Your task to perform on an android device: change the clock display to digital Image 0: 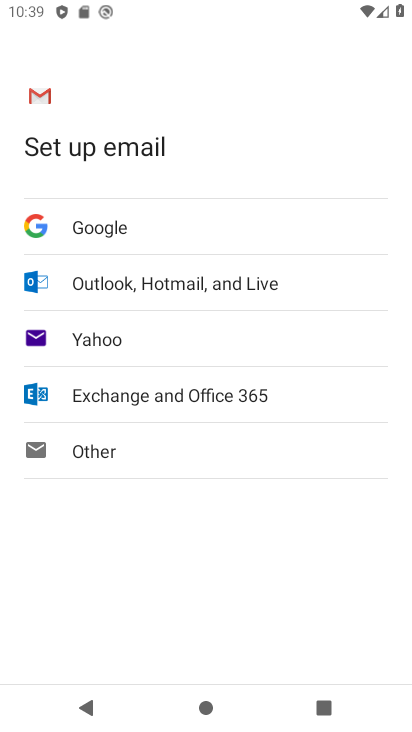
Step 0: press home button
Your task to perform on an android device: change the clock display to digital Image 1: 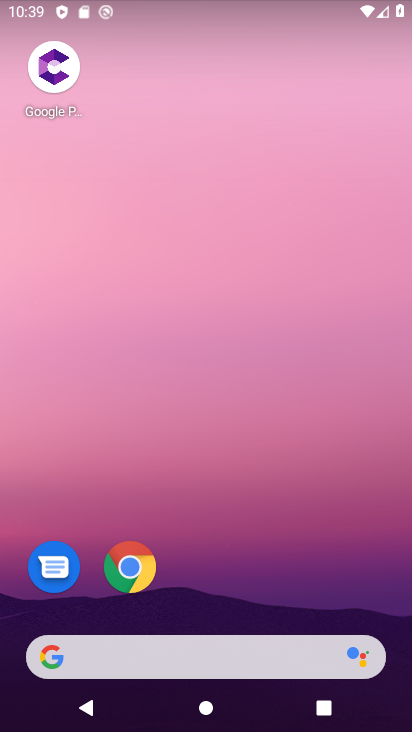
Step 1: drag from (214, 583) to (201, 18)
Your task to perform on an android device: change the clock display to digital Image 2: 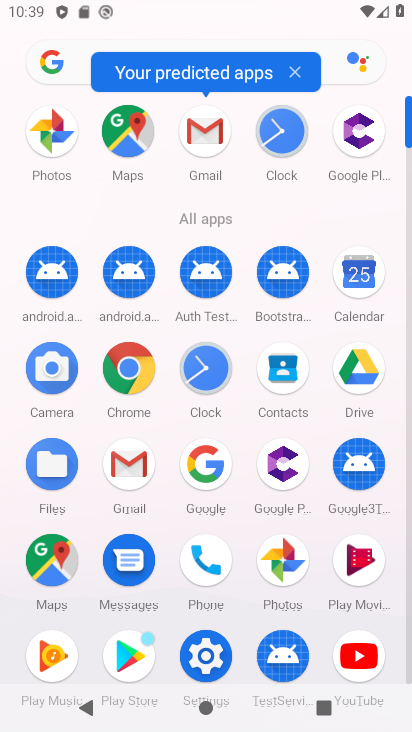
Step 2: click (199, 376)
Your task to perform on an android device: change the clock display to digital Image 3: 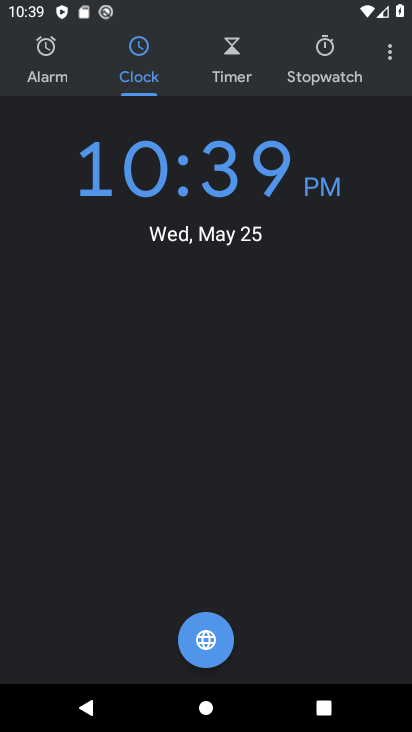
Step 3: click (391, 58)
Your task to perform on an android device: change the clock display to digital Image 4: 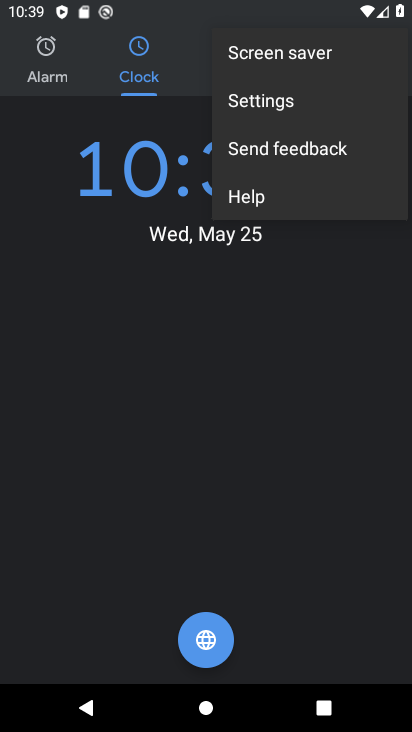
Step 4: click (267, 95)
Your task to perform on an android device: change the clock display to digital Image 5: 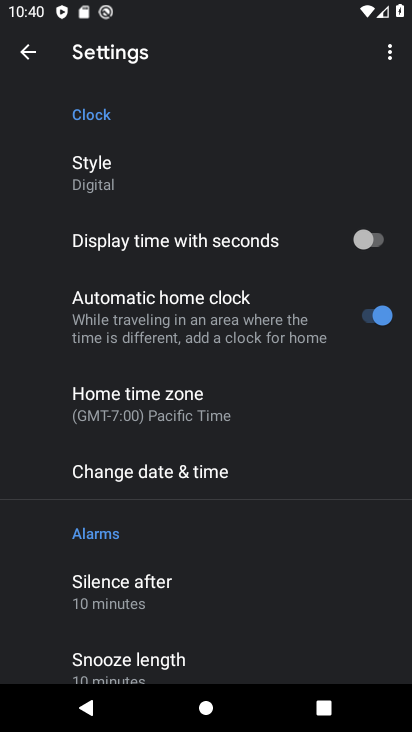
Step 5: click (123, 170)
Your task to perform on an android device: change the clock display to digital Image 6: 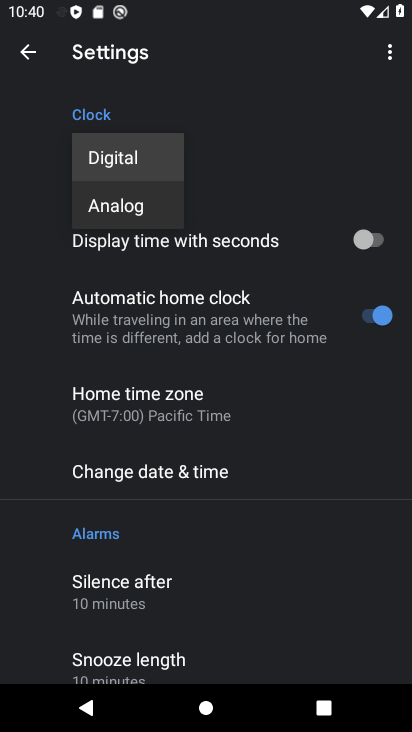
Step 6: task complete